Your task to perform on an android device: snooze an email in the gmail app Image 0: 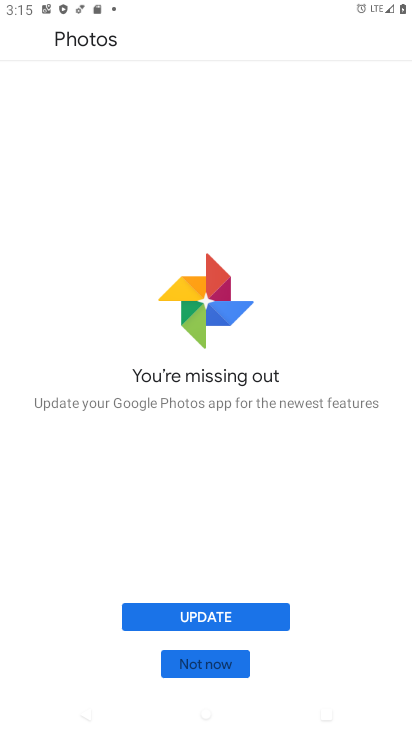
Step 0: press home button
Your task to perform on an android device: snooze an email in the gmail app Image 1: 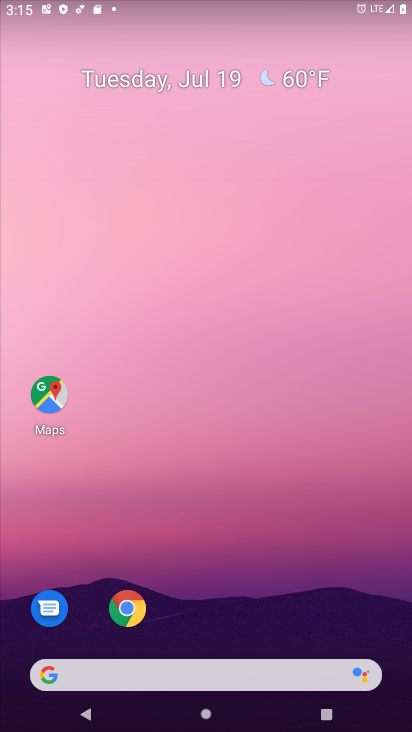
Step 1: drag from (267, 526) to (3, 241)
Your task to perform on an android device: snooze an email in the gmail app Image 2: 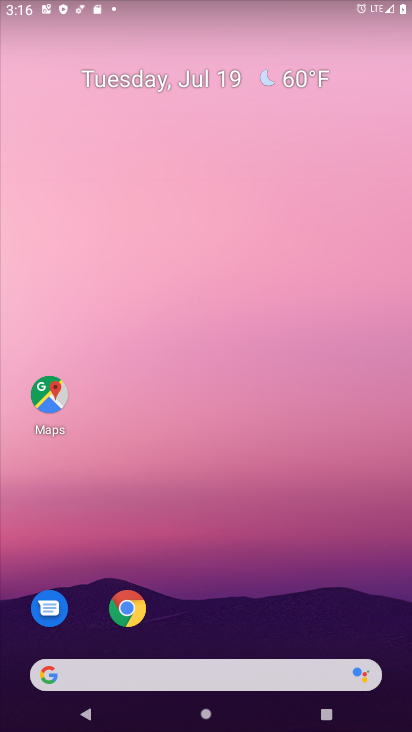
Step 2: drag from (269, 597) to (179, 97)
Your task to perform on an android device: snooze an email in the gmail app Image 3: 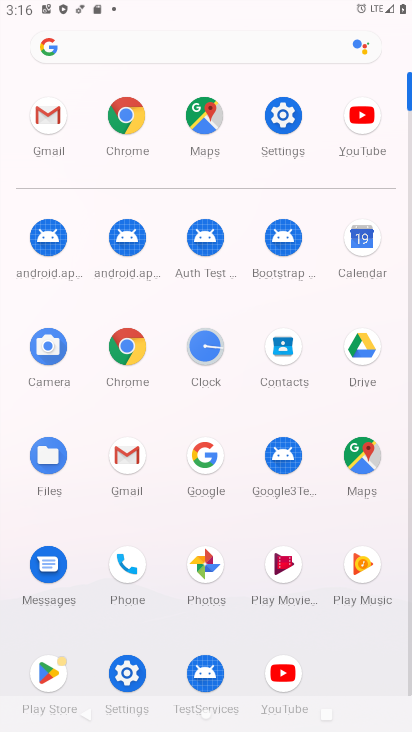
Step 3: click (46, 114)
Your task to perform on an android device: snooze an email in the gmail app Image 4: 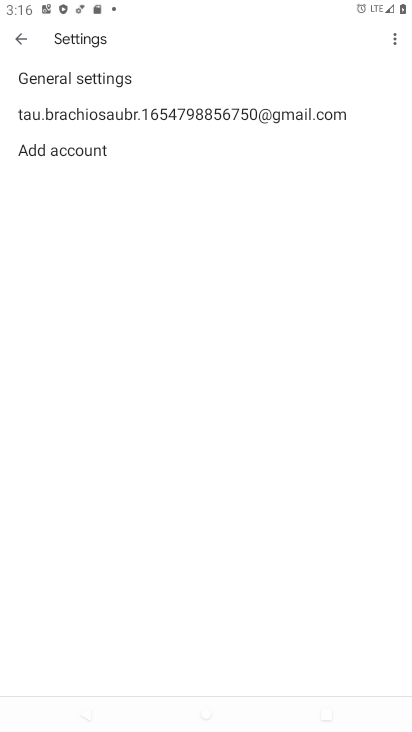
Step 4: click (46, 116)
Your task to perform on an android device: snooze an email in the gmail app Image 5: 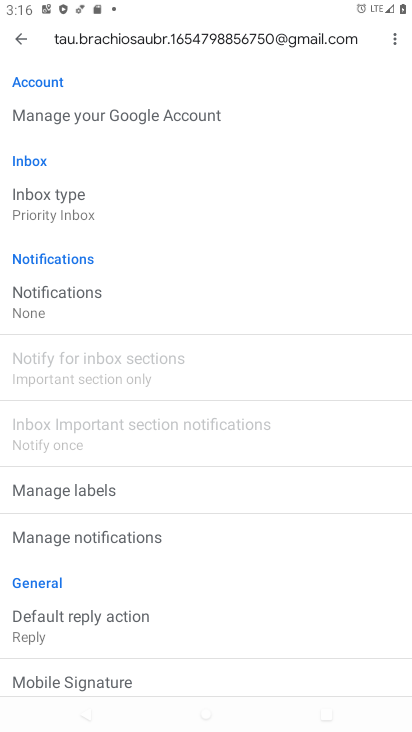
Step 5: click (29, 38)
Your task to perform on an android device: snooze an email in the gmail app Image 6: 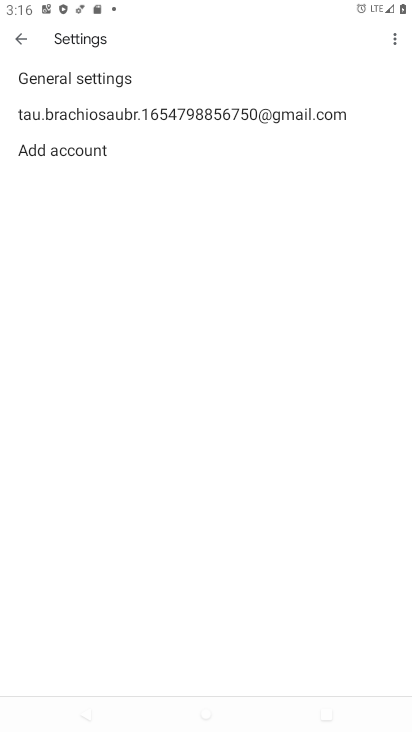
Step 6: click (25, 36)
Your task to perform on an android device: snooze an email in the gmail app Image 7: 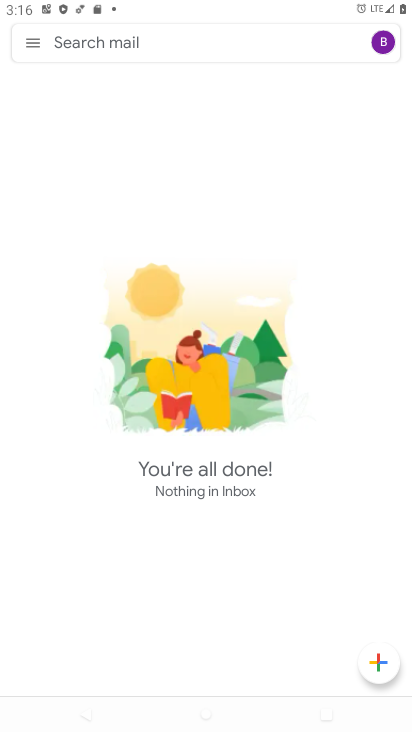
Step 7: task complete